Your task to perform on an android device: open app "Instagram" (install if not already installed) Image 0: 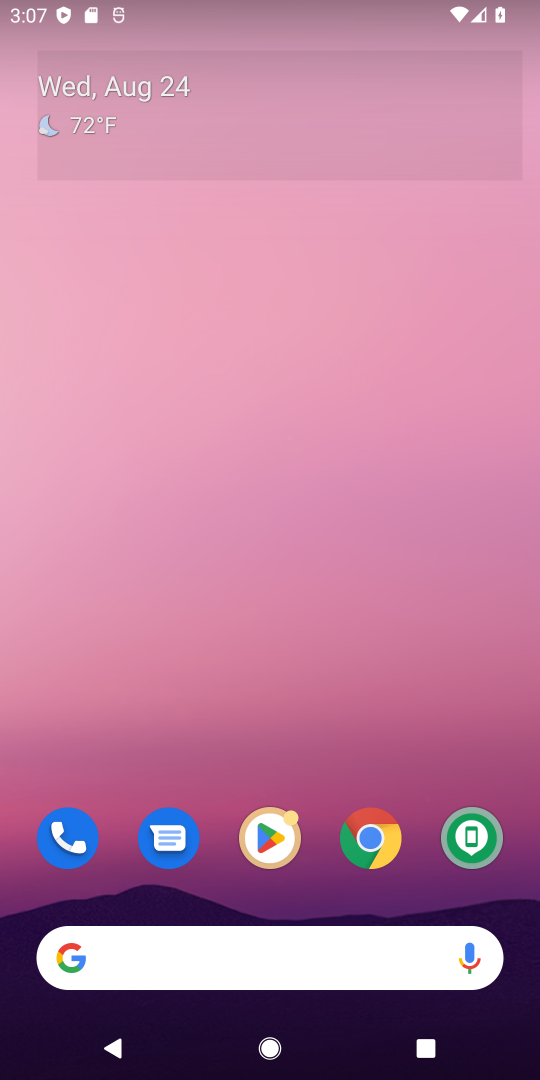
Step 0: press home button
Your task to perform on an android device: open app "Instagram" (install if not already installed) Image 1: 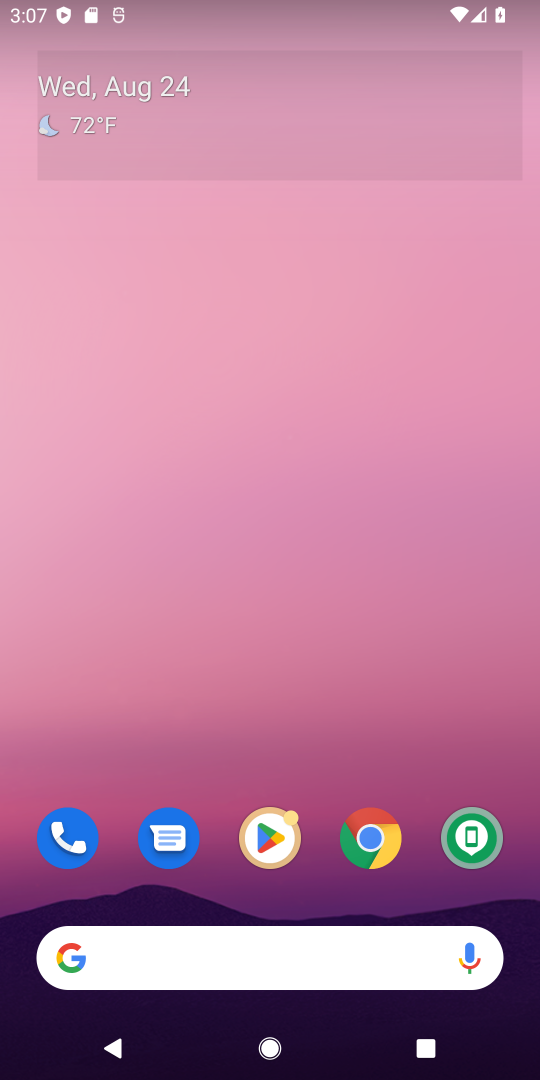
Step 1: drag from (425, 684) to (428, 96)
Your task to perform on an android device: open app "Instagram" (install if not already installed) Image 2: 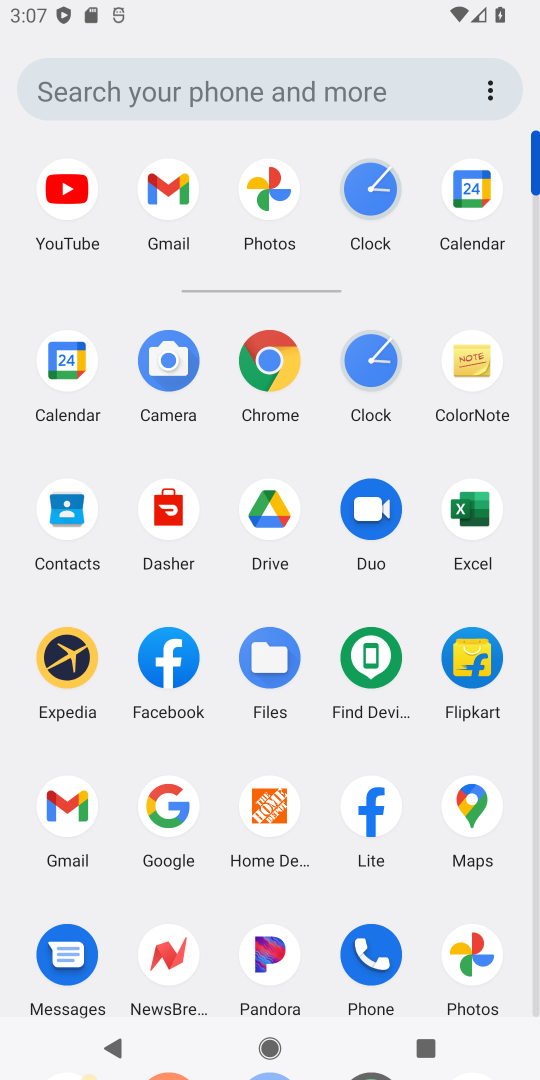
Step 2: drag from (502, 912) to (510, 539)
Your task to perform on an android device: open app "Instagram" (install if not already installed) Image 3: 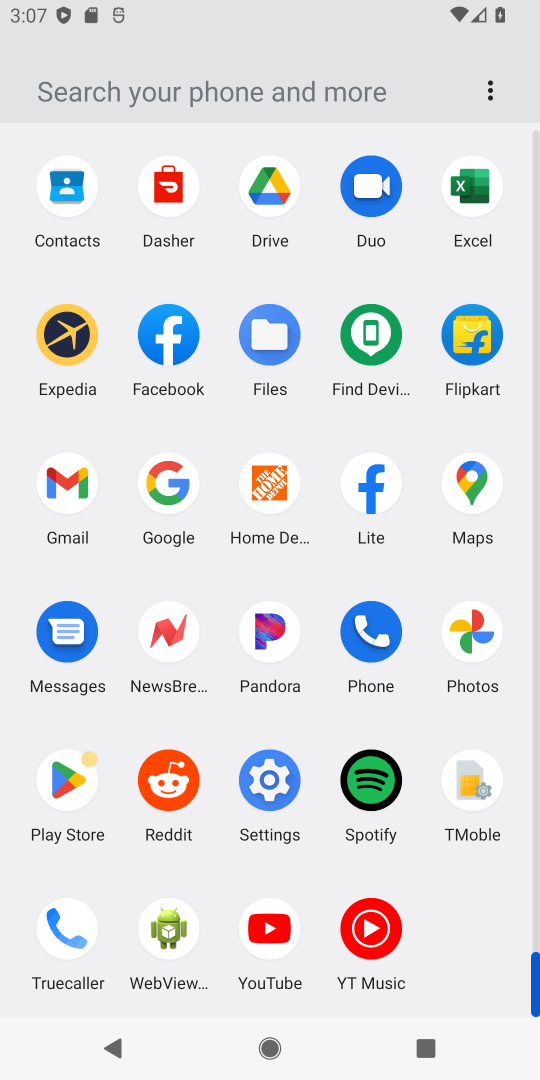
Step 3: click (78, 775)
Your task to perform on an android device: open app "Instagram" (install if not already installed) Image 4: 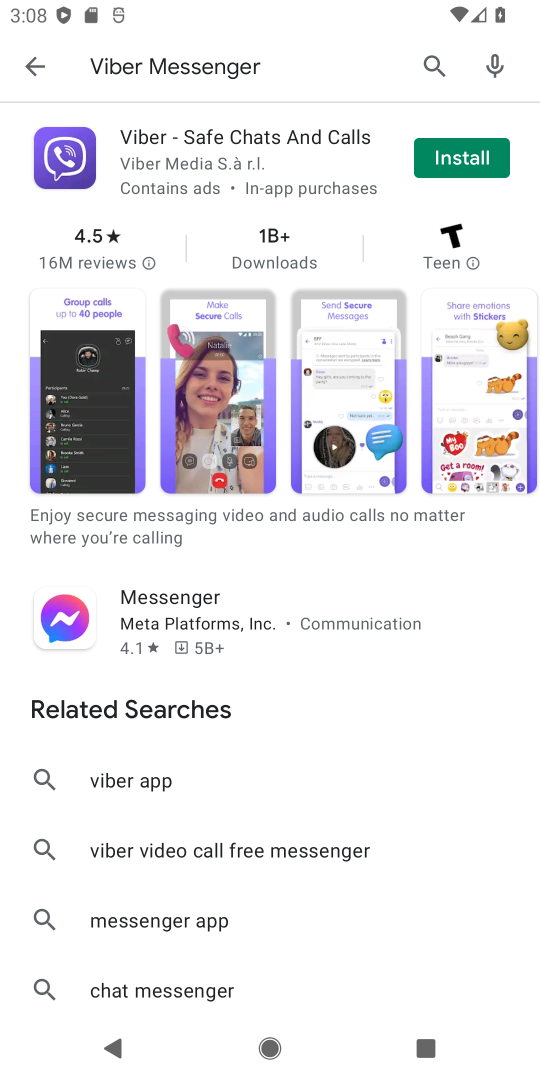
Step 4: press back button
Your task to perform on an android device: open app "Instagram" (install if not already installed) Image 5: 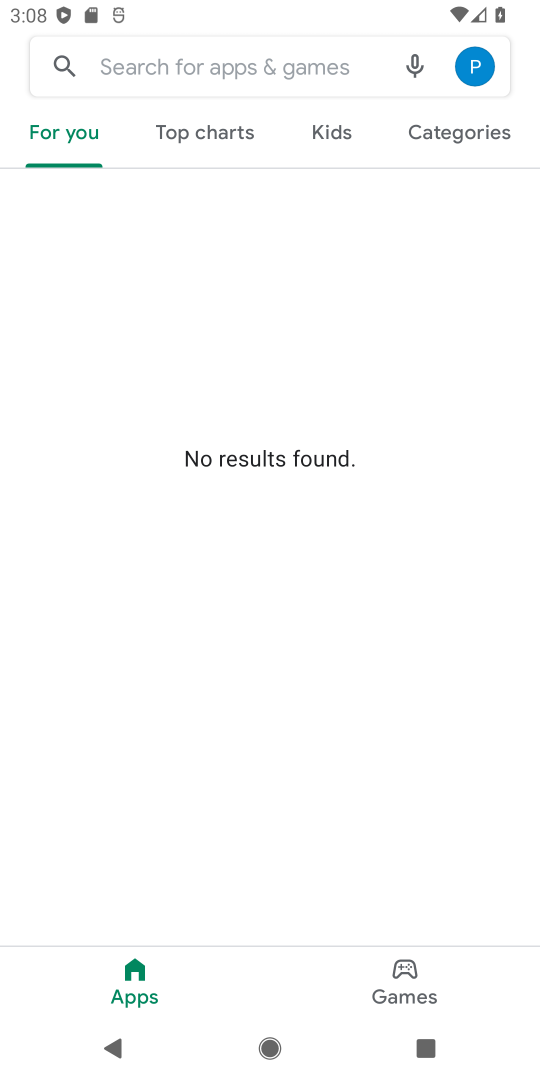
Step 5: click (302, 68)
Your task to perform on an android device: open app "Instagram" (install if not already installed) Image 6: 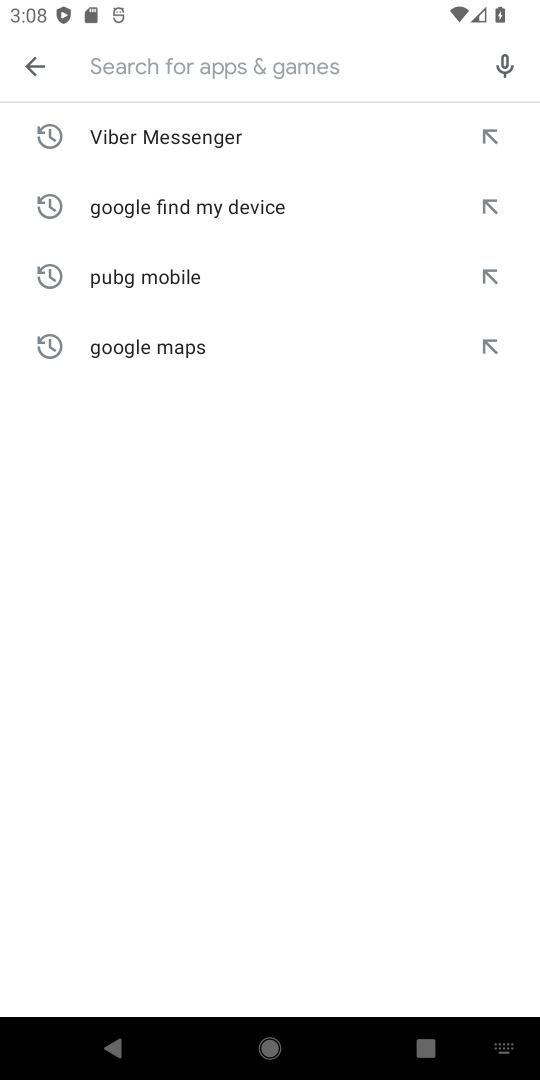
Step 6: type "instagram"
Your task to perform on an android device: open app "Instagram" (install if not already installed) Image 7: 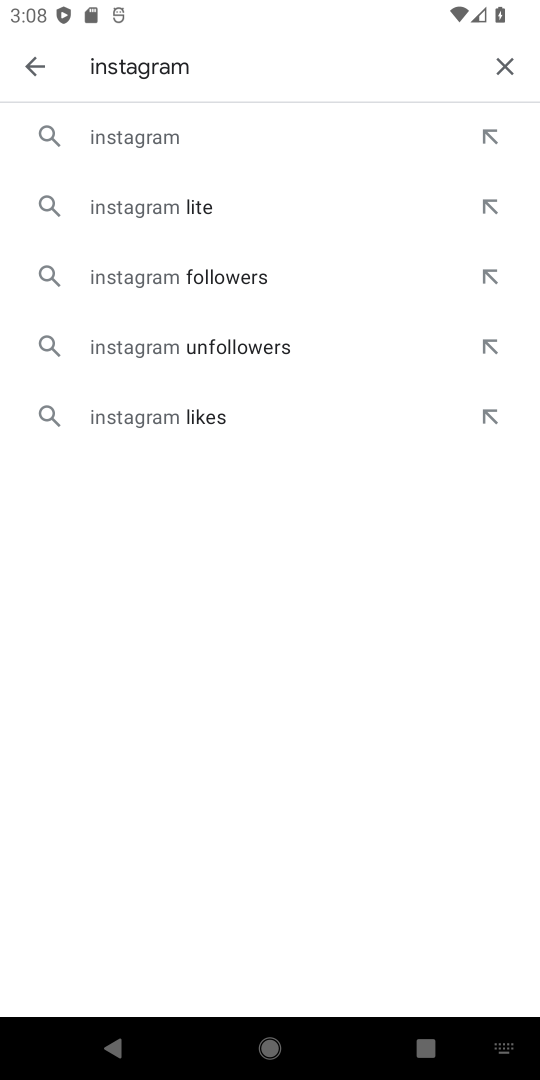
Step 7: press enter
Your task to perform on an android device: open app "Instagram" (install if not already installed) Image 8: 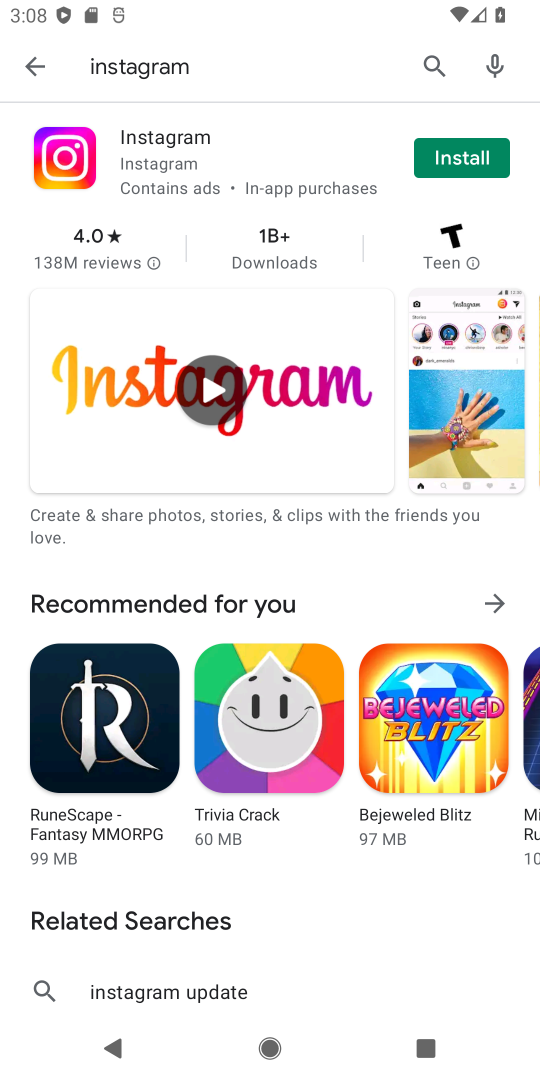
Step 8: click (449, 157)
Your task to perform on an android device: open app "Instagram" (install if not already installed) Image 9: 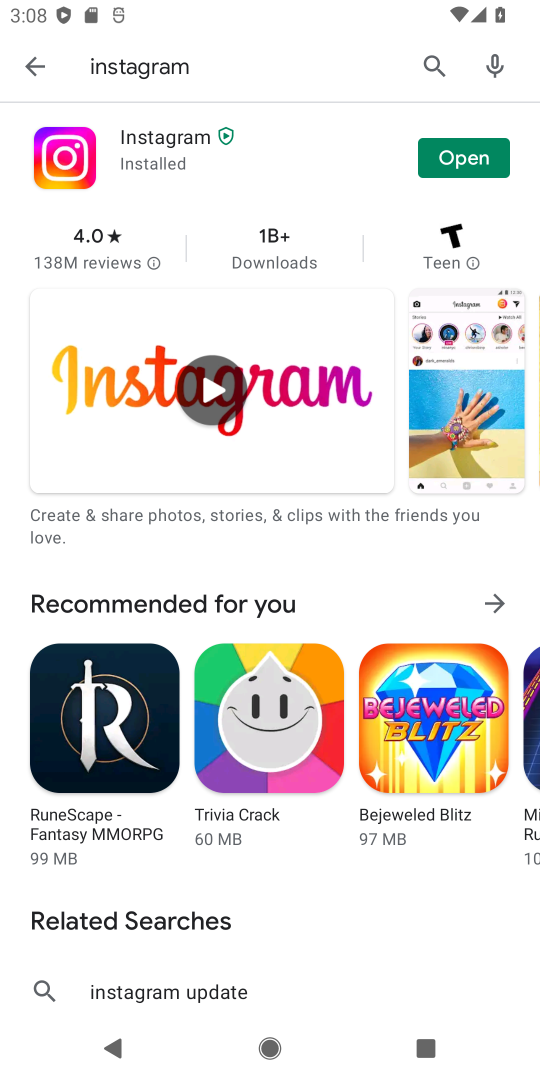
Step 9: click (466, 158)
Your task to perform on an android device: open app "Instagram" (install if not already installed) Image 10: 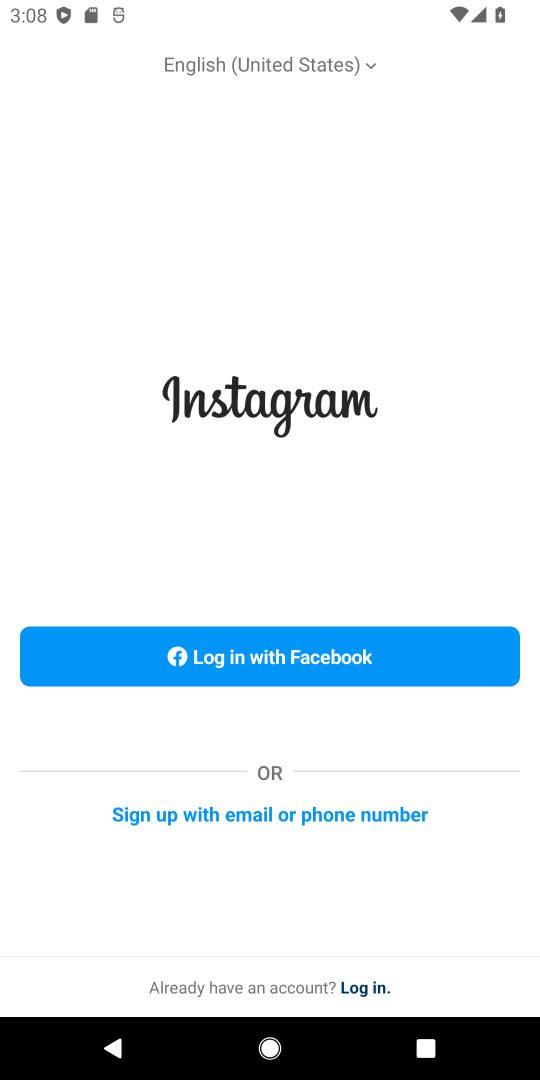
Step 10: task complete